Your task to perform on an android device: Open internet settings Image 0: 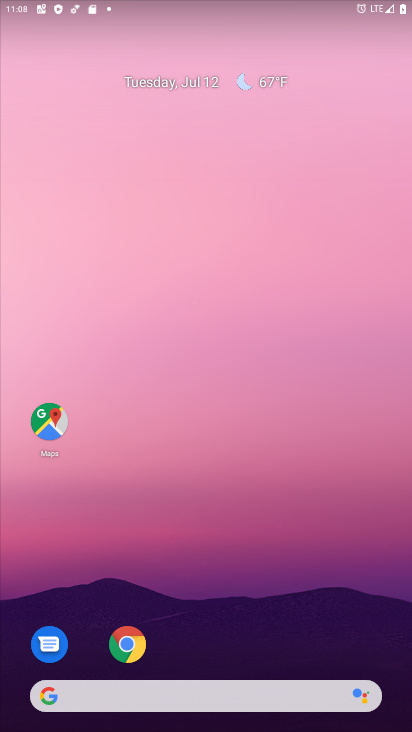
Step 0: drag from (178, 595) to (167, 270)
Your task to perform on an android device: Open internet settings Image 1: 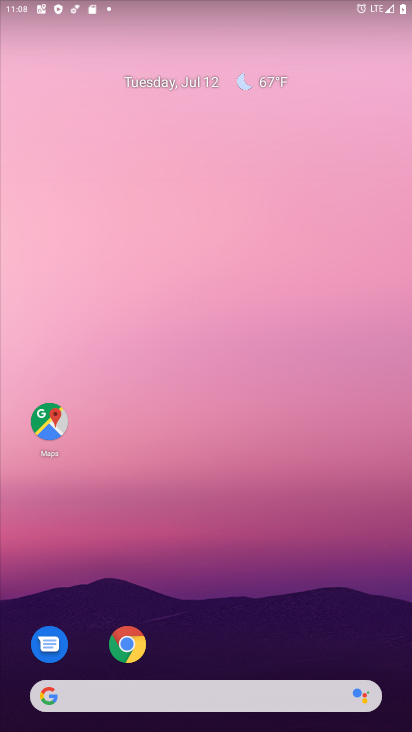
Step 1: click (276, 19)
Your task to perform on an android device: Open internet settings Image 2: 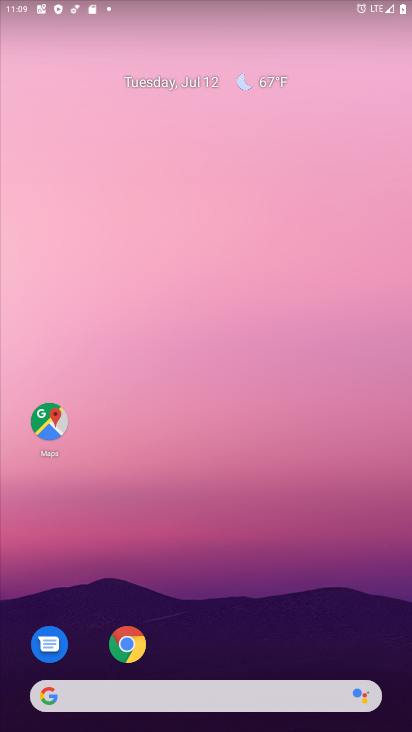
Step 2: drag from (186, 658) to (219, 41)
Your task to perform on an android device: Open internet settings Image 3: 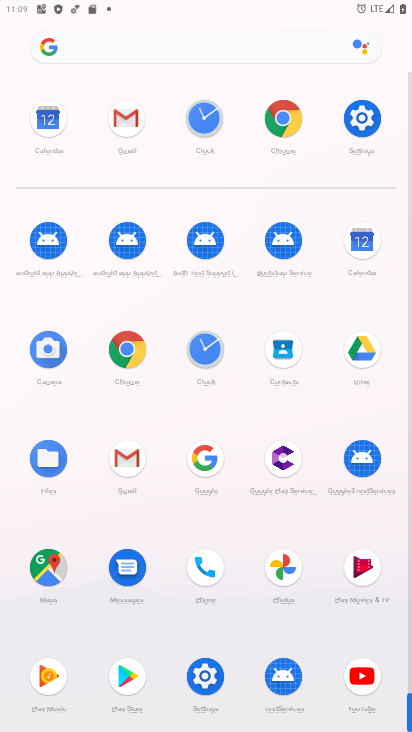
Step 3: click (351, 117)
Your task to perform on an android device: Open internet settings Image 4: 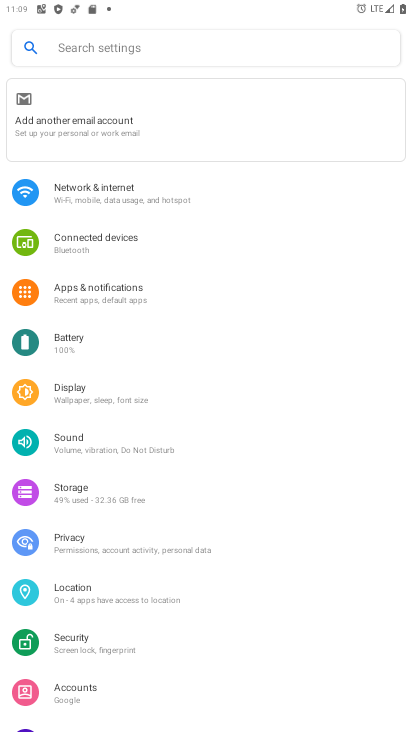
Step 4: click (98, 199)
Your task to perform on an android device: Open internet settings Image 5: 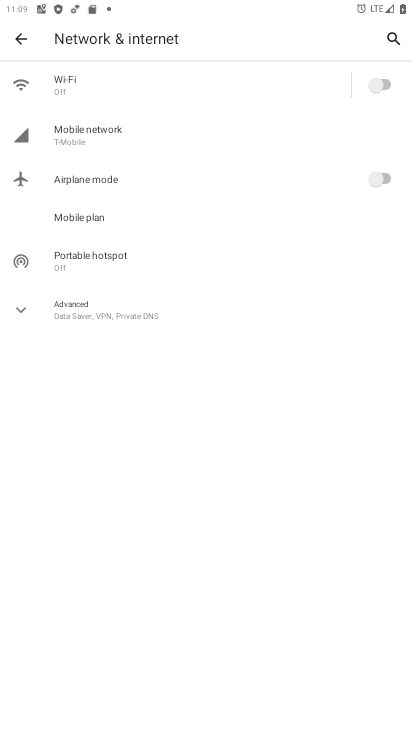
Step 5: task complete